Your task to perform on an android device: turn off translation in the chrome app Image 0: 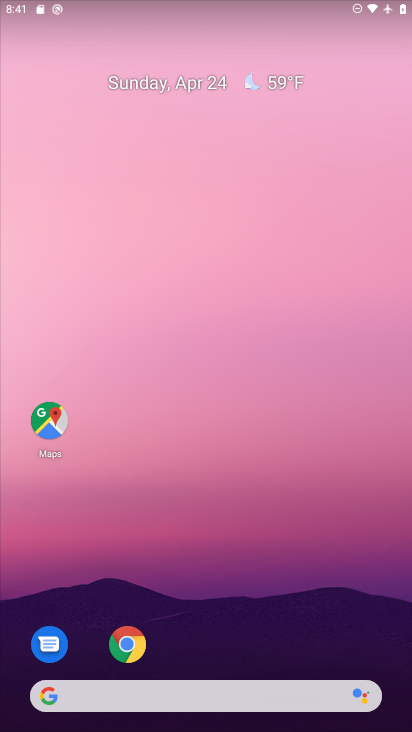
Step 0: click (125, 638)
Your task to perform on an android device: turn off translation in the chrome app Image 1: 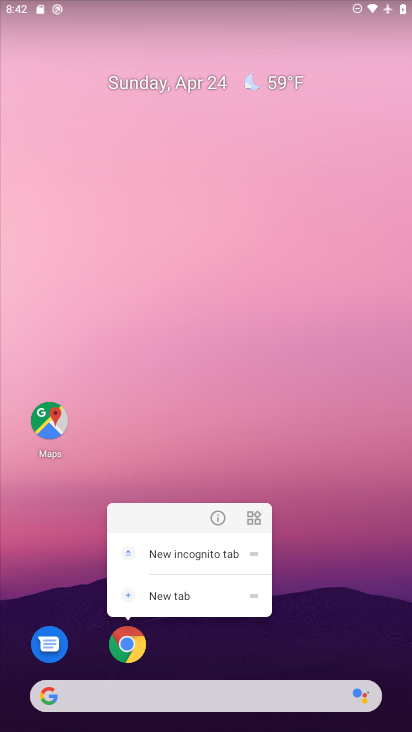
Step 1: click (218, 643)
Your task to perform on an android device: turn off translation in the chrome app Image 2: 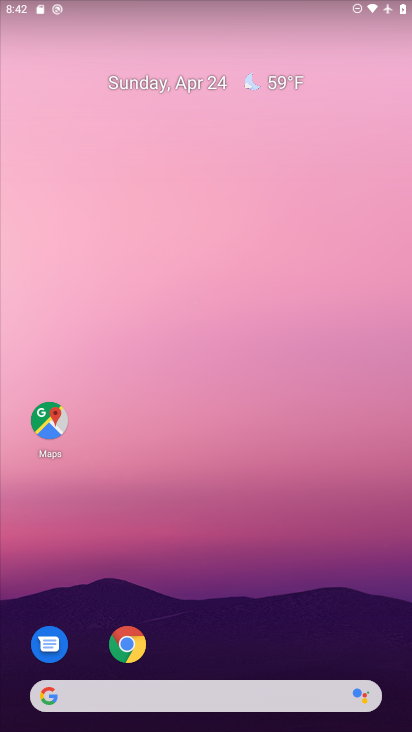
Step 2: drag from (273, 659) to (269, 144)
Your task to perform on an android device: turn off translation in the chrome app Image 3: 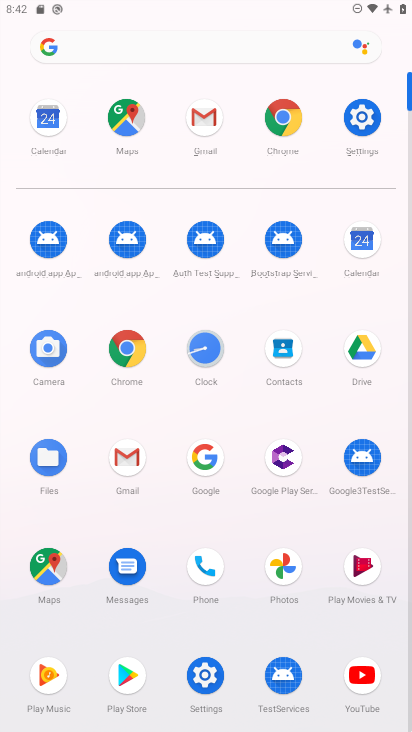
Step 3: click (127, 341)
Your task to perform on an android device: turn off translation in the chrome app Image 4: 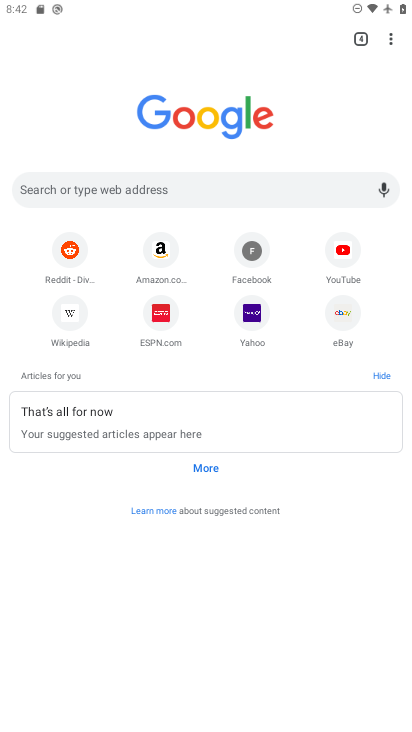
Step 4: click (389, 36)
Your task to perform on an android device: turn off translation in the chrome app Image 5: 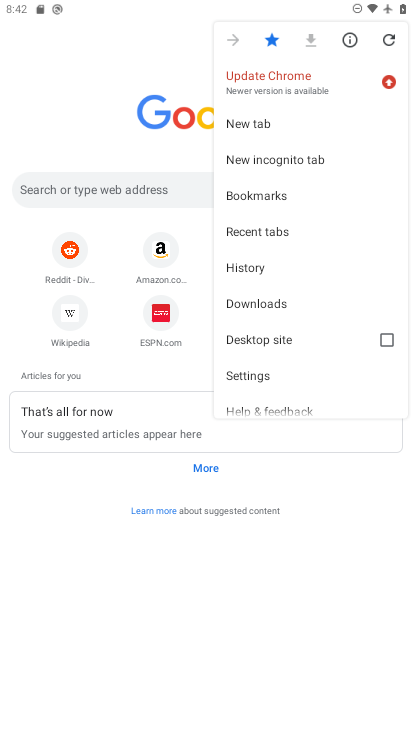
Step 5: click (267, 370)
Your task to perform on an android device: turn off translation in the chrome app Image 6: 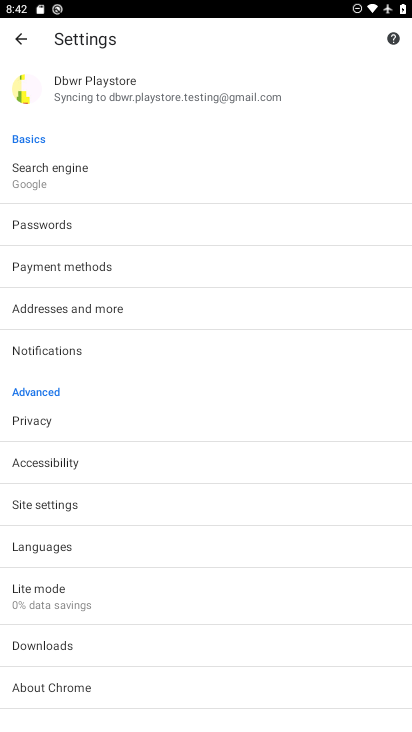
Step 6: click (85, 542)
Your task to perform on an android device: turn off translation in the chrome app Image 7: 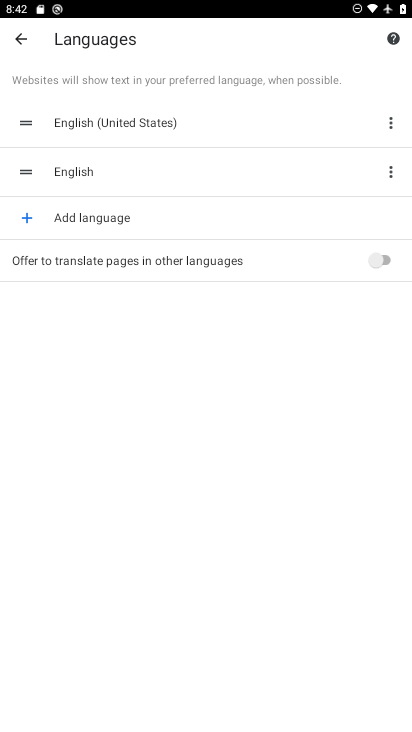
Step 7: task complete